Your task to perform on an android device: turn on data saver in the chrome app Image 0: 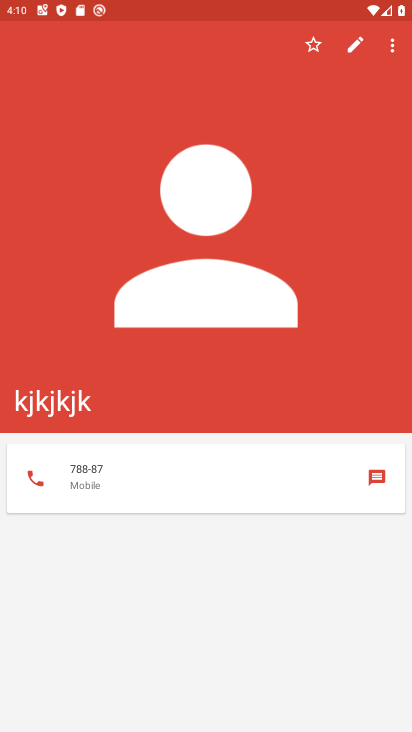
Step 0: press home button
Your task to perform on an android device: turn on data saver in the chrome app Image 1: 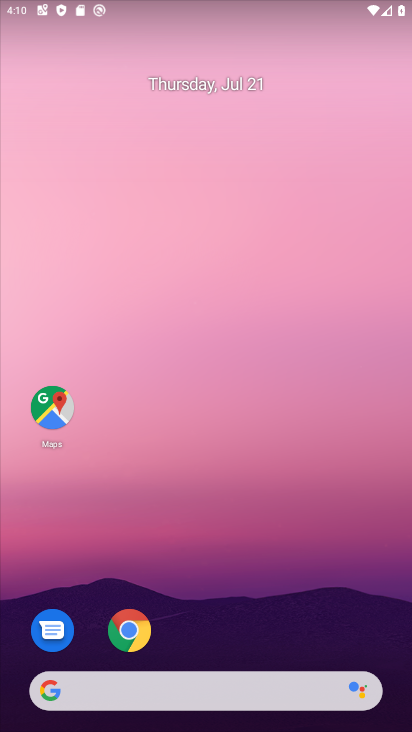
Step 1: drag from (26, 699) to (364, 125)
Your task to perform on an android device: turn on data saver in the chrome app Image 2: 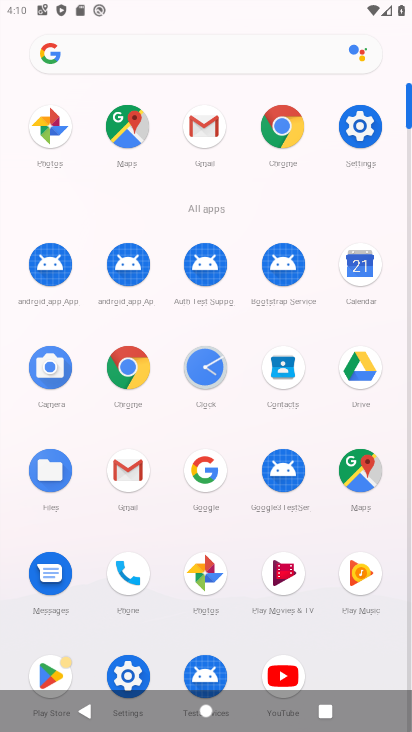
Step 2: click (125, 686)
Your task to perform on an android device: turn on data saver in the chrome app Image 3: 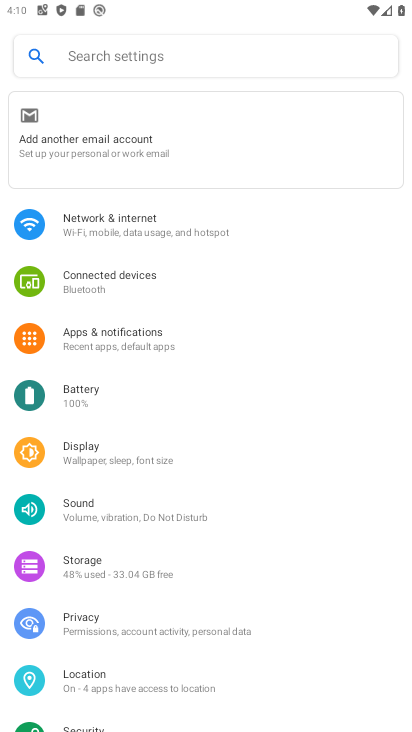
Step 3: click (120, 225)
Your task to perform on an android device: turn on data saver in the chrome app Image 4: 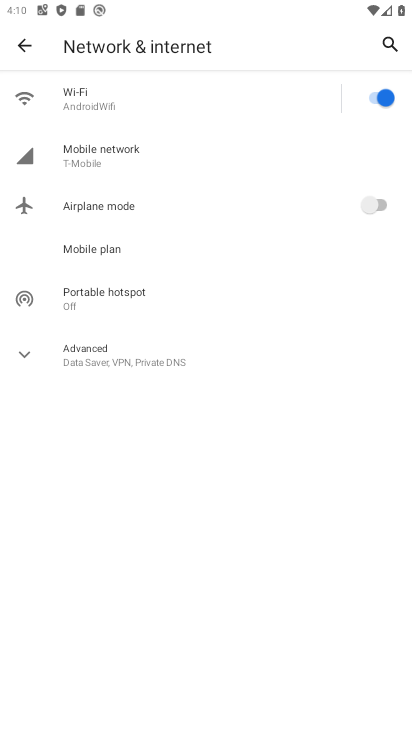
Step 4: click (132, 145)
Your task to perform on an android device: turn on data saver in the chrome app Image 5: 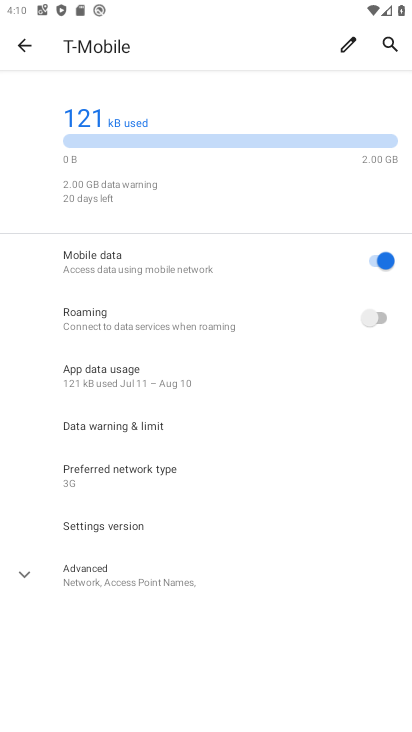
Step 5: task complete